Your task to perform on an android device: toggle notification dots Image 0: 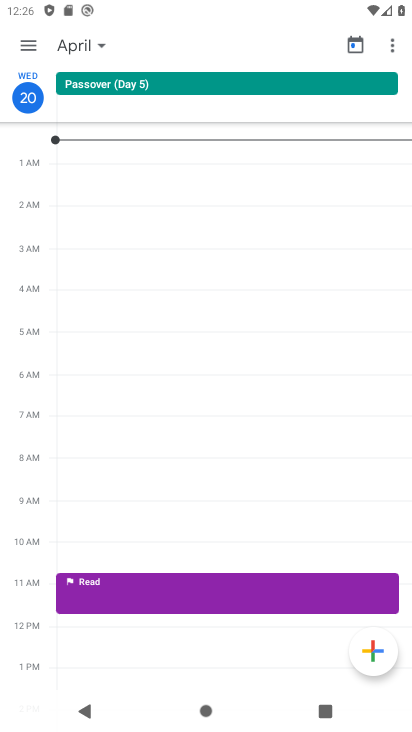
Step 0: press home button
Your task to perform on an android device: toggle notification dots Image 1: 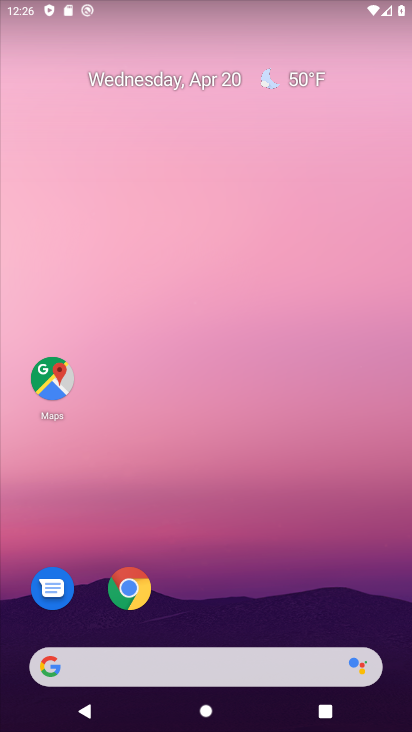
Step 1: drag from (202, 610) to (239, 58)
Your task to perform on an android device: toggle notification dots Image 2: 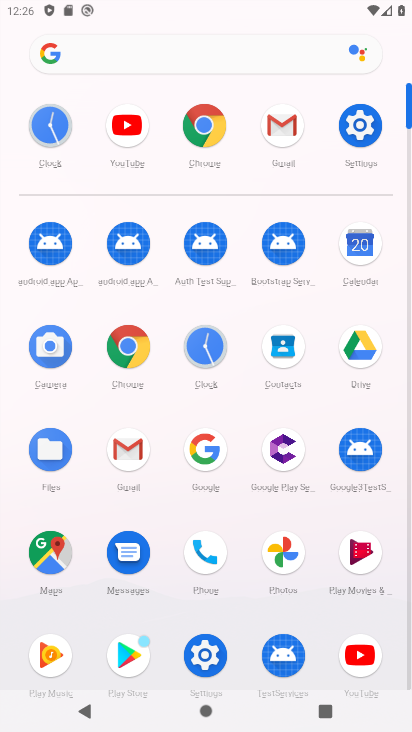
Step 2: click (363, 119)
Your task to perform on an android device: toggle notification dots Image 3: 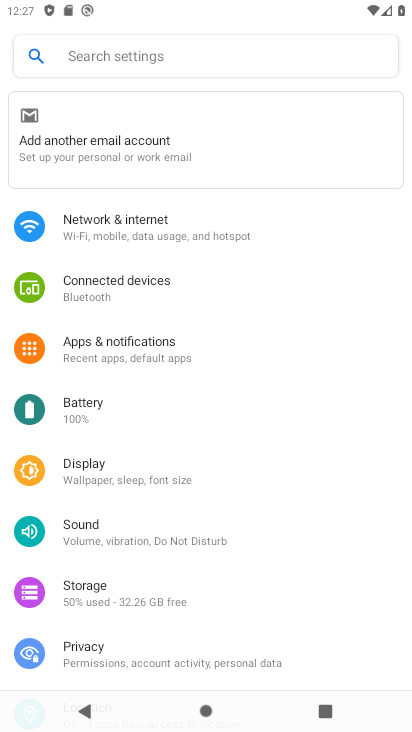
Step 3: click (159, 338)
Your task to perform on an android device: toggle notification dots Image 4: 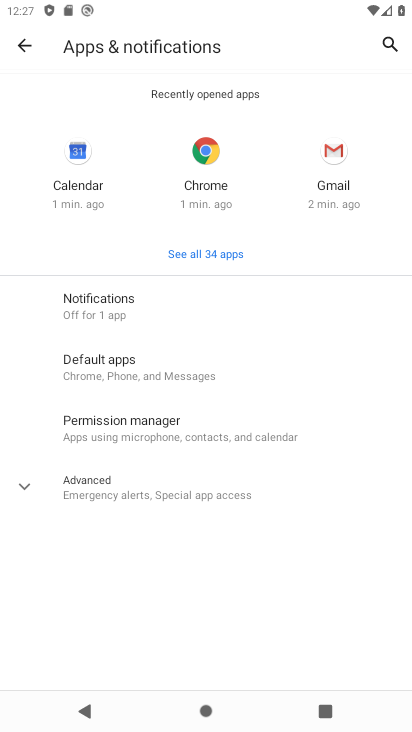
Step 4: click (117, 303)
Your task to perform on an android device: toggle notification dots Image 5: 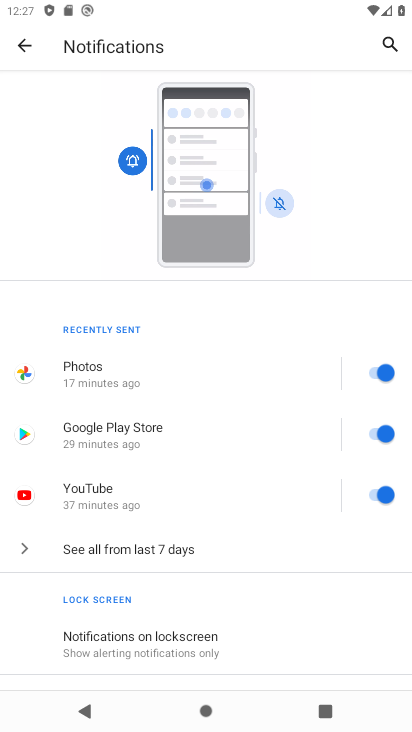
Step 5: drag from (179, 624) to (225, 190)
Your task to perform on an android device: toggle notification dots Image 6: 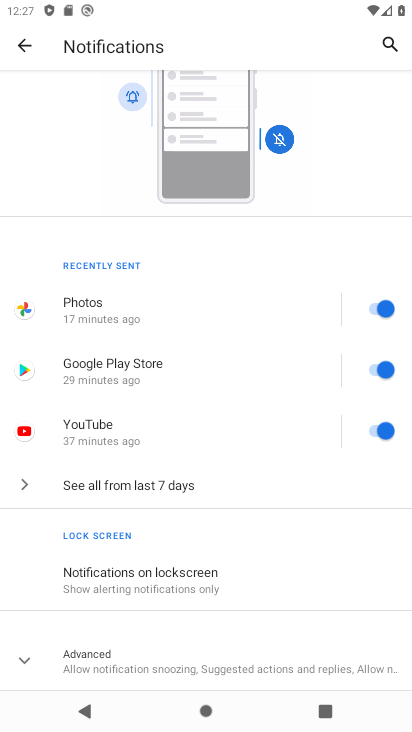
Step 6: click (24, 654)
Your task to perform on an android device: toggle notification dots Image 7: 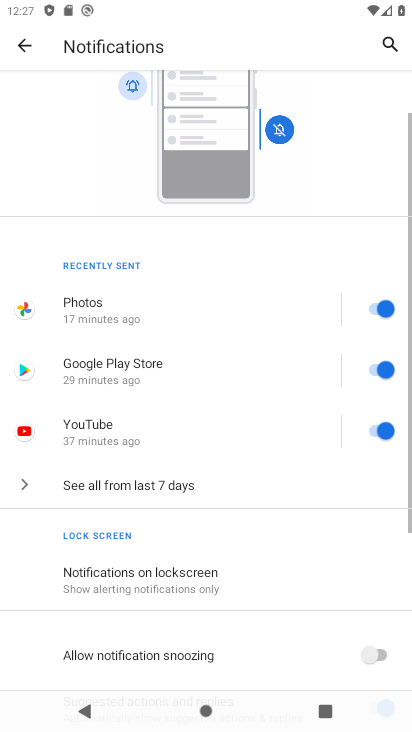
Step 7: drag from (112, 631) to (169, 156)
Your task to perform on an android device: toggle notification dots Image 8: 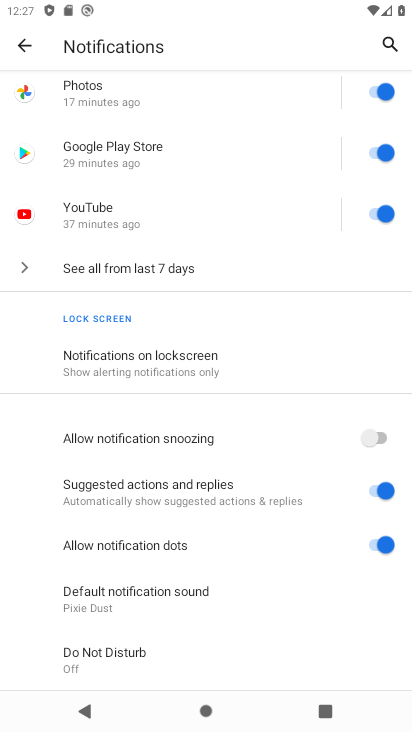
Step 8: click (378, 537)
Your task to perform on an android device: toggle notification dots Image 9: 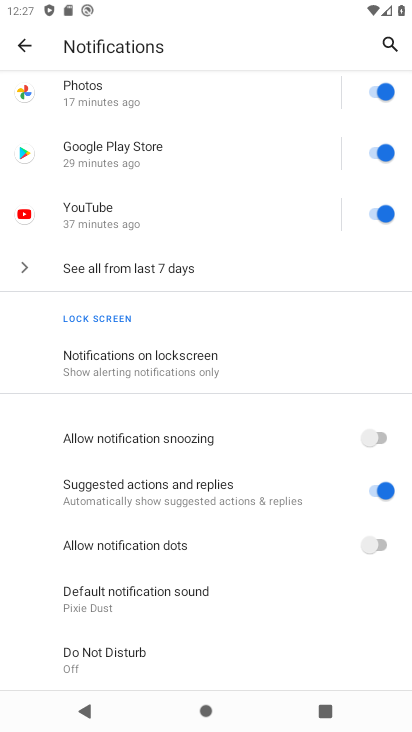
Step 9: task complete